Your task to perform on an android device: What's on my calendar tomorrow? Image 0: 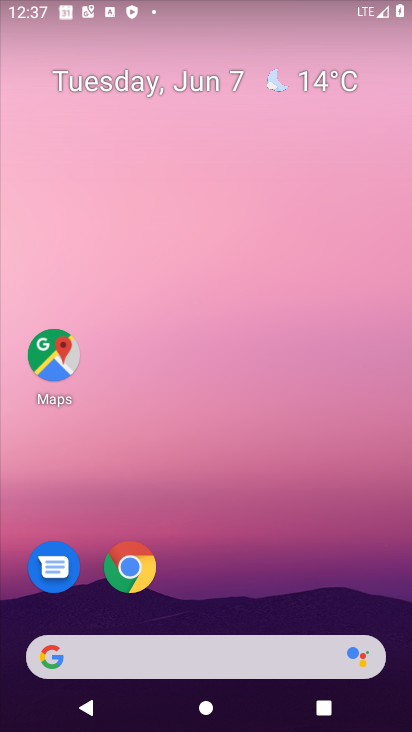
Step 0: drag from (178, 572) to (266, 13)
Your task to perform on an android device: What's on my calendar tomorrow? Image 1: 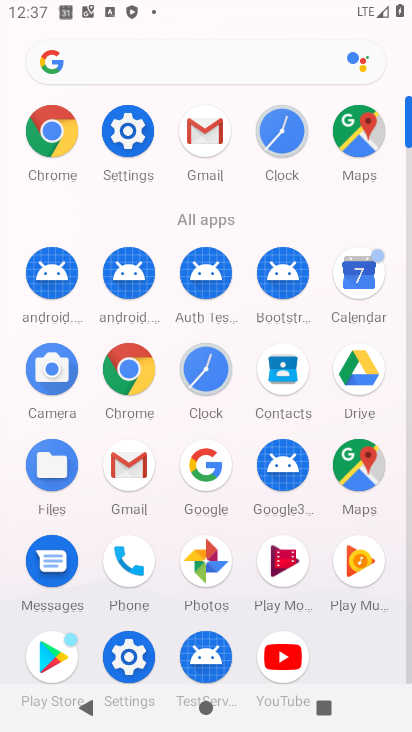
Step 1: click (360, 278)
Your task to perform on an android device: What's on my calendar tomorrow? Image 2: 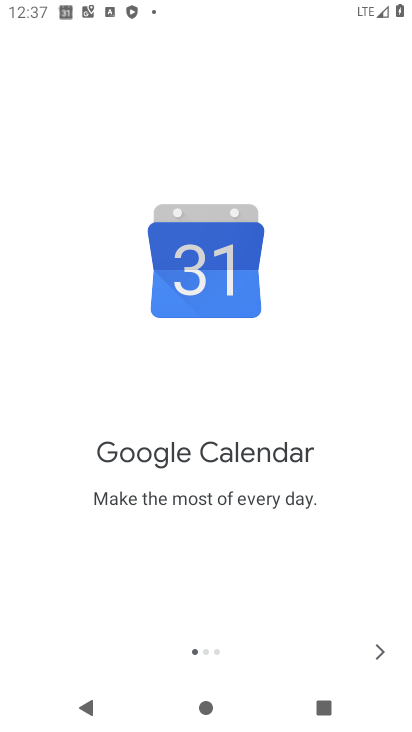
Step 2: click (391, 651)
Your task to perform on an android device: What's on my calendar tomorrow? Image 3: 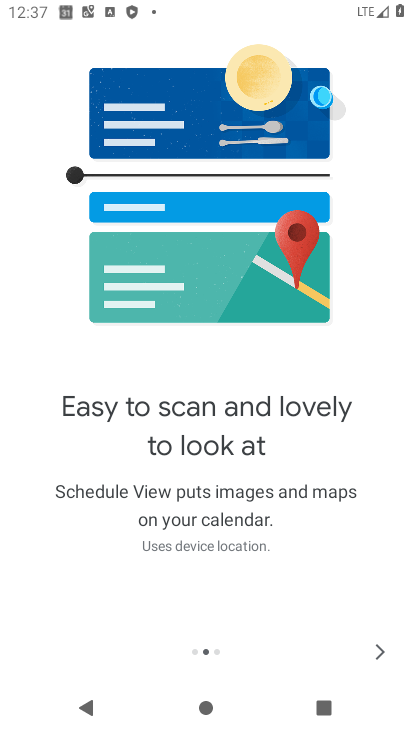
Step 3: click (390, 651)
Your task to perform on an android device: What's on my calendar tomorrow? Image 4: 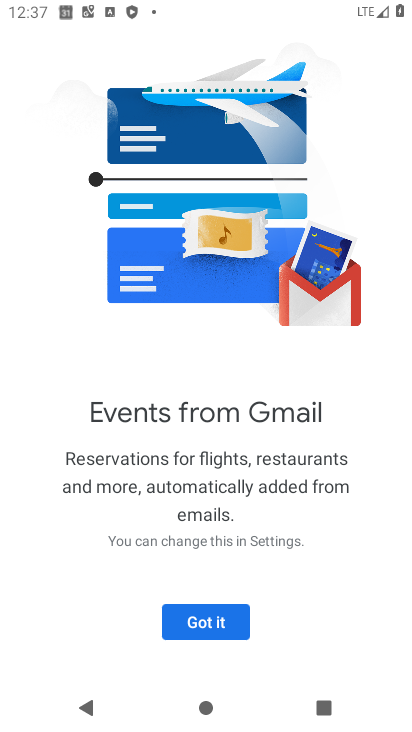
Step 4: click (215, 637)
Your task to perform on an android device: What's on my calendar tomorrow? Image 5: 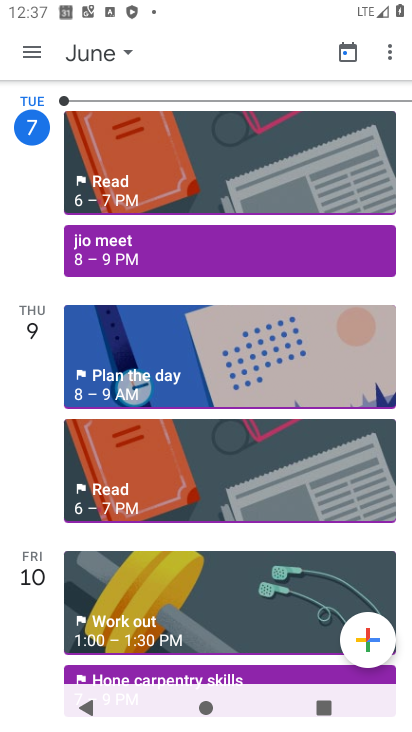
Step 5: click (123, 57)
Your task to perform on an android device: What's on my calendar tomorrow? Image 6: 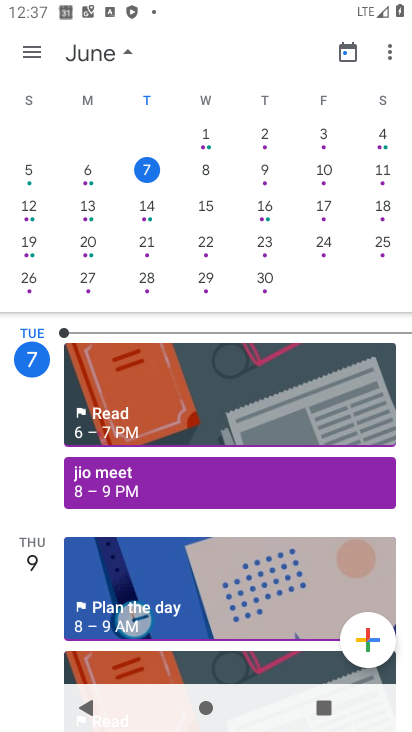
Step 6: click (203, 162)
Your task to perform on an android device: What's on my calendar tomorrow? Image 7: 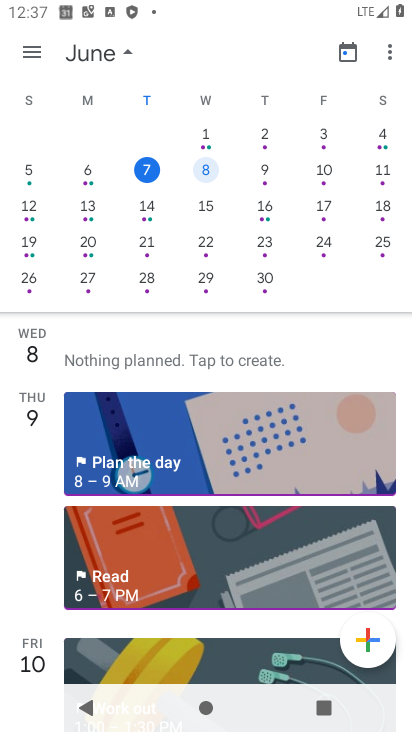
Step 7: task complete